Your task to perform on an android device: Open calendar and show me the first week of next month Image 0: 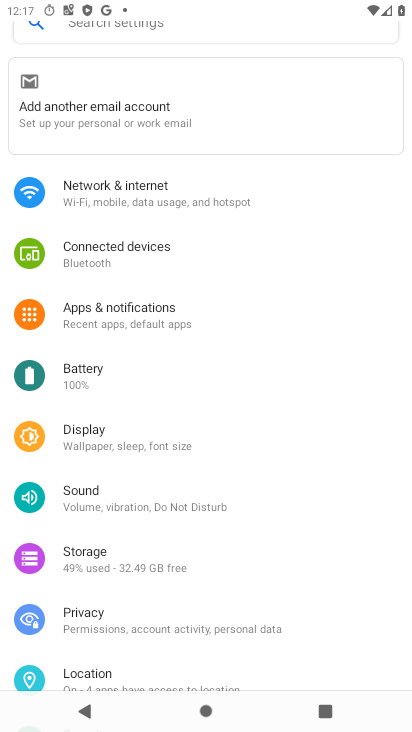
Step 0: press home button
Your task to perform on an android device: Open calendar and show me the first week of next month Image 1: 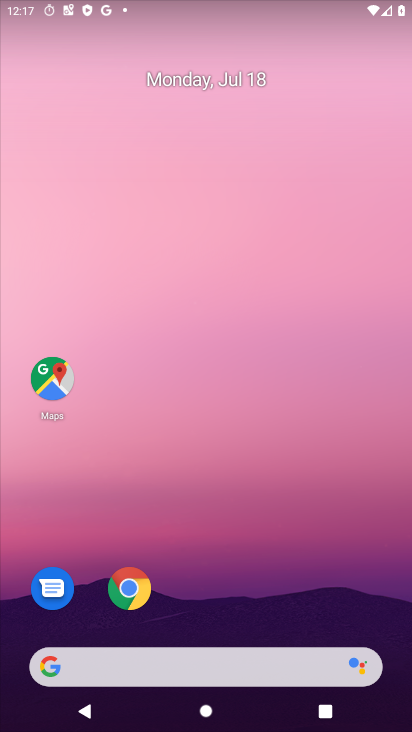
Step 1: drag from (265, 583) to (264, 153)
Your task to perform on an android device: Open calendar and show me the first week of next month Image 2: 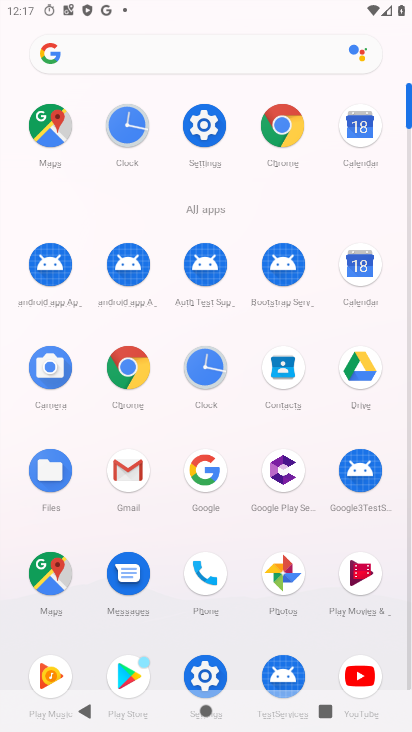
Step 2: click (358, 269)
Your task to perform on an android device: Open calendar and show me the first week of next month Image 3: 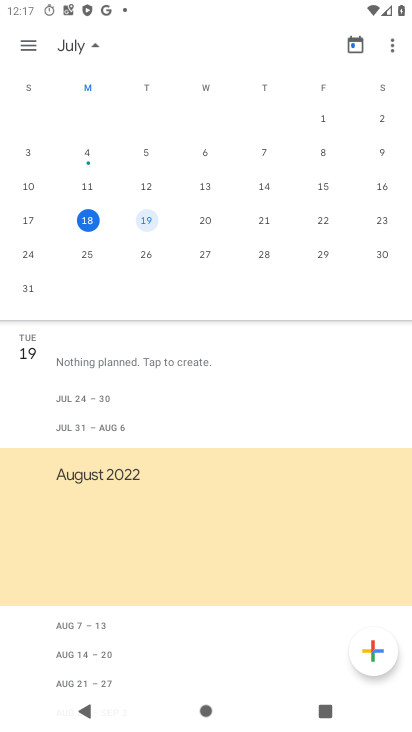
Step 3: task complete